Your task to perform on an android device: toggle pop-ups in chrome Image 0: 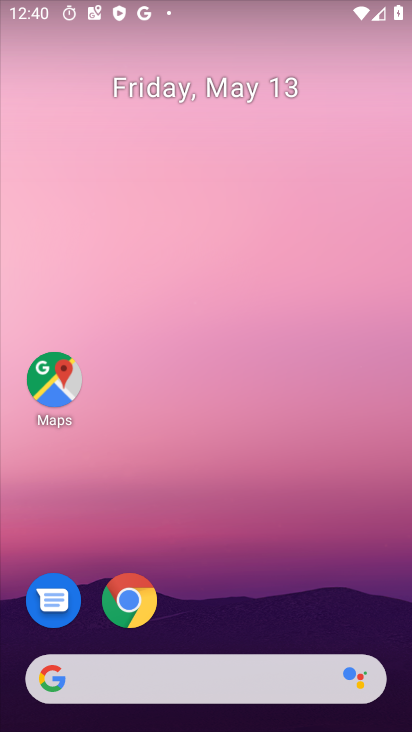
Step 0: click (135, 588)
Your task to perform on an android device: toggle pop-ups in chrome Image 1: 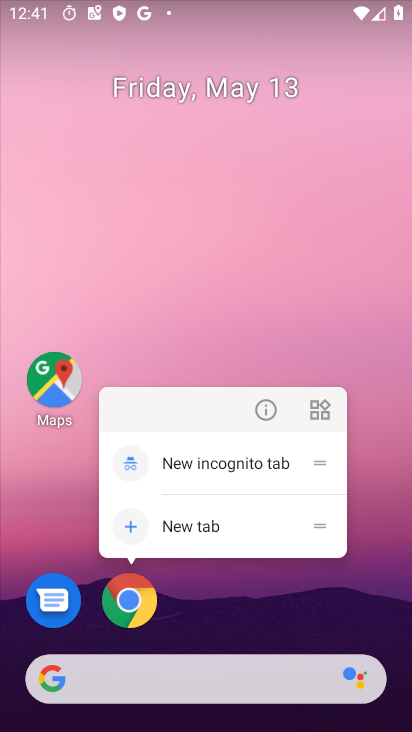
Step 1: click (259, 423)
Your task to perform on an android device: toggle pop-ups in chrome Image 2: 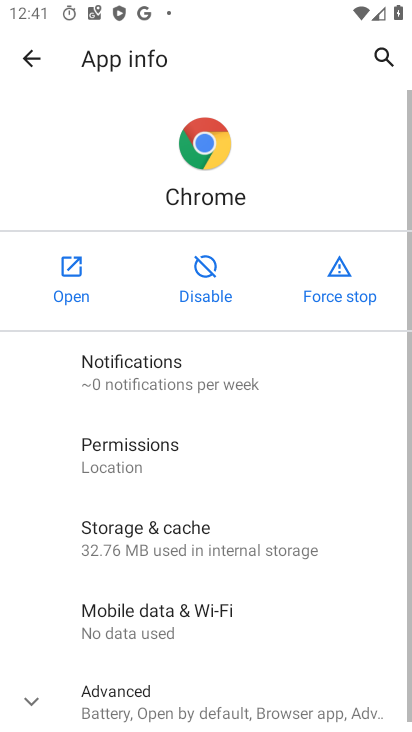
Step 2: click (64, 266)
Your task to perform on an android device: toggle pop-ups in chrome Image 3: 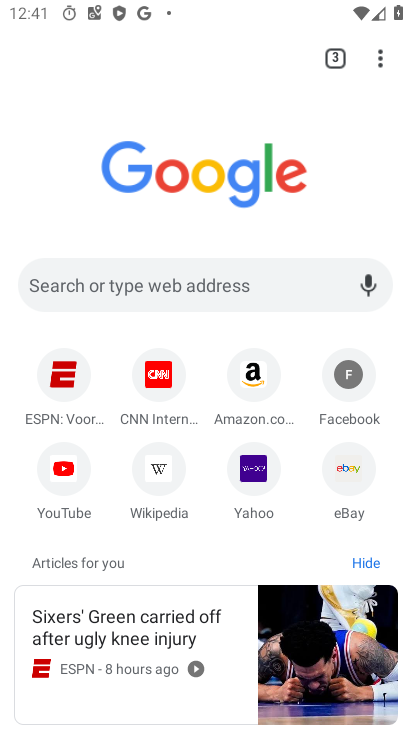
Step 3: drag from (377, 55) to (223, 493)
Your task to perform on an android device: toggle pop-ups in chrome Image 4: 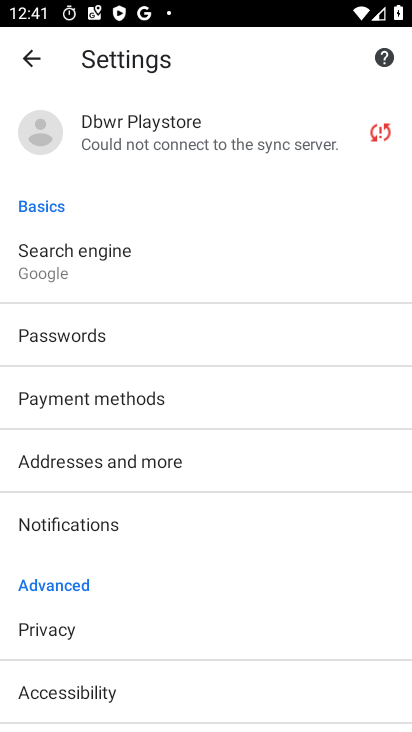
Step 4: drag from (98, 617) to (128, 392)
Your task to perform on an android device: toggle pop-ups in chrome Image 5: 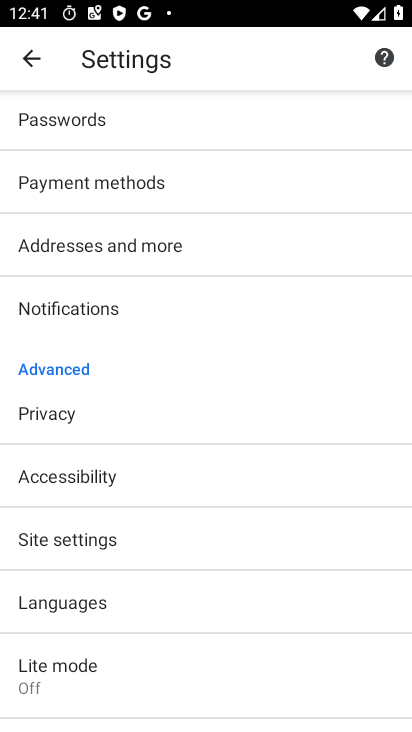
Step 5: click (113, 532)
Your task to perform on an android device: toggle pop-ups in chrome Image 6: 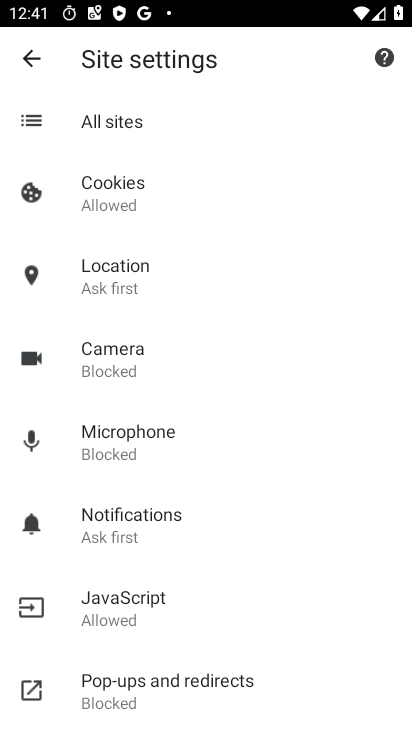
Step 6: click (234, 362)
Your task to perform on an android device: toggle pop-ups in chrome Image 7: 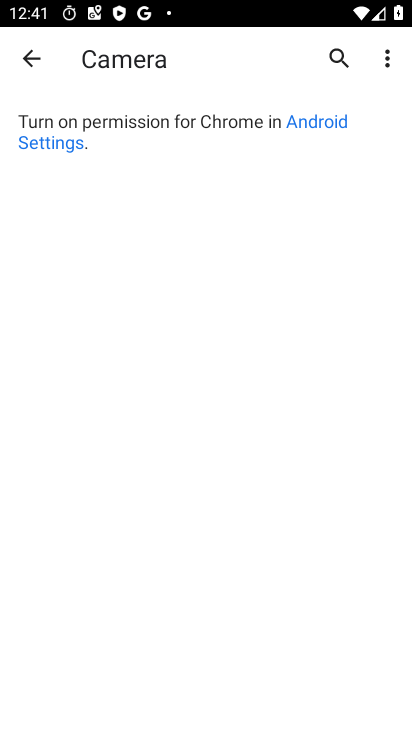
Step 7: click (16, 66)
Your task to perform on an android device: toggle pop-ups in chrome Image 8: 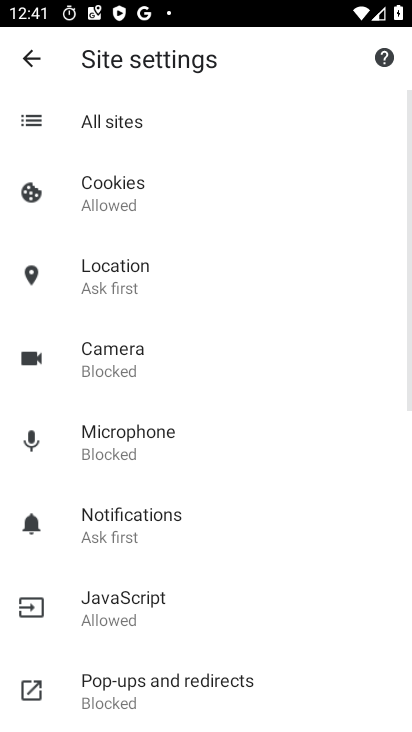
Step 8: click (168, 674)
Your task to perform on an android device: toggle pop-ups in chrome Image 9: 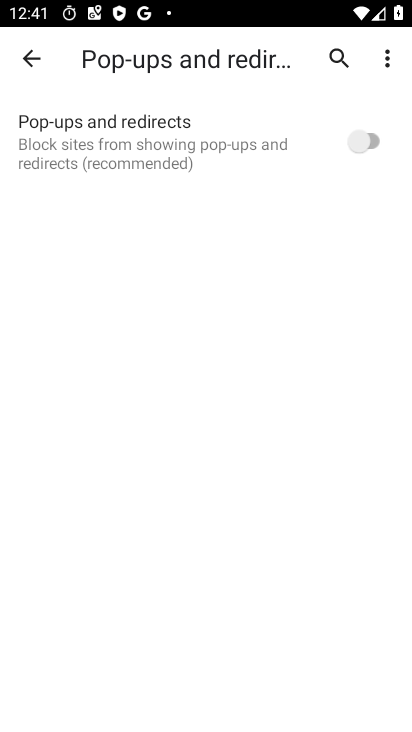
Step 9: drag from (170, 669) to (170, 310)
Your task to perform on an android device: toggle pop-ups in chrome Image 10: 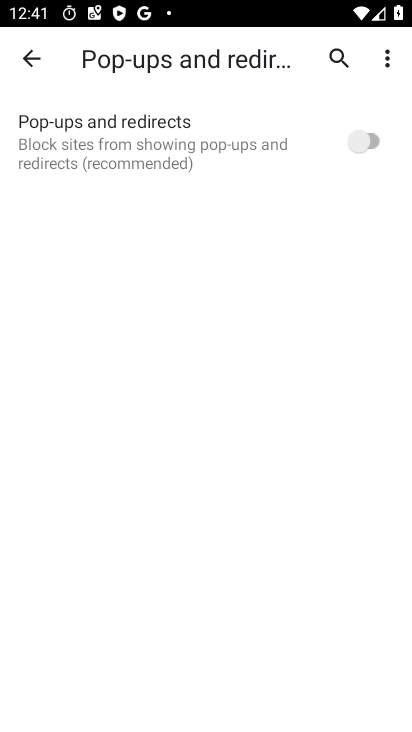
Step 10: click (368, 140)
Your task to perform on an android device: toggle pop-ups in chrome Image 11: 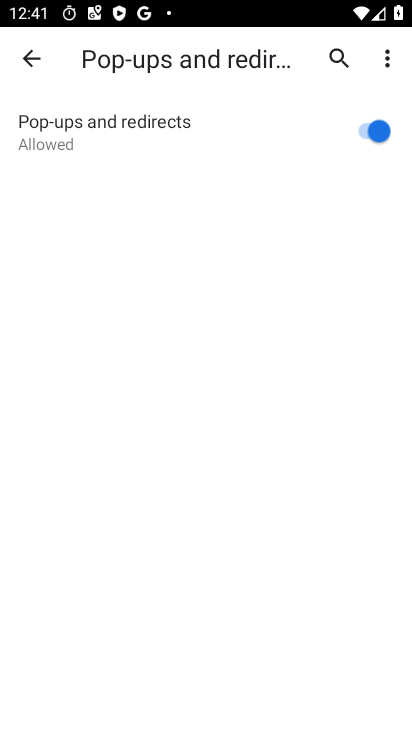
Step 11: task complete